Your task to perform on an android device: add a contact in the contacts app Image 0: 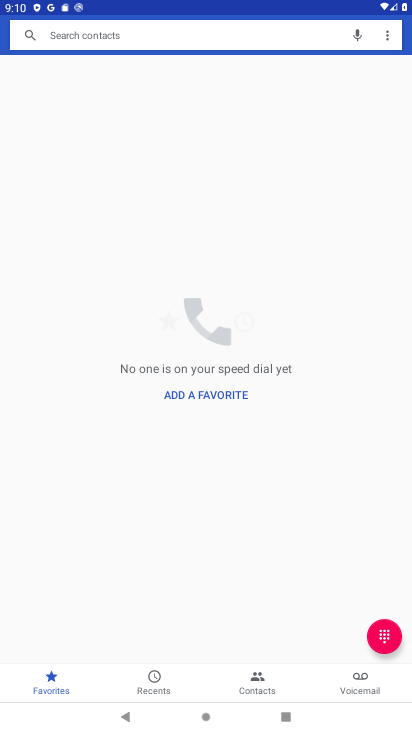
Step 0: press home button
Your task to perform on an android device: add a contact in the contacts app Image 1: 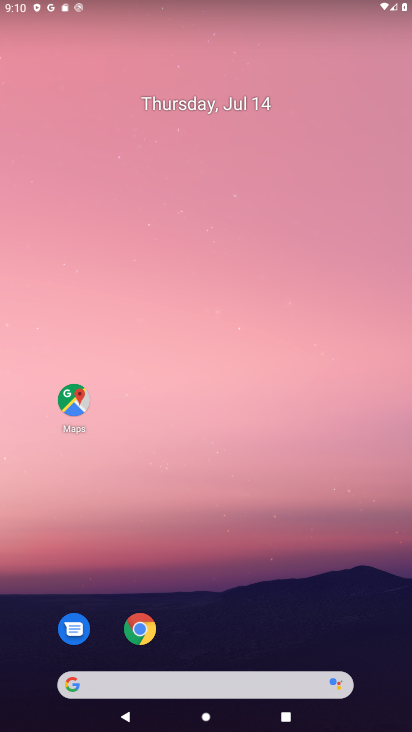
Step 1: drag from (30, 513) to (215, 118)
Your task to perform on an android device: add a contact in the contacts app Image 2: 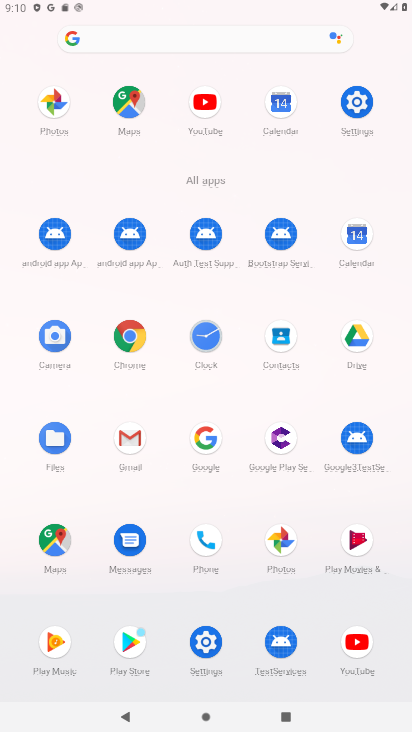
Step 2: click (208, 548)
Your task to perform on an android device: add a contact in the contacts app Image 3: 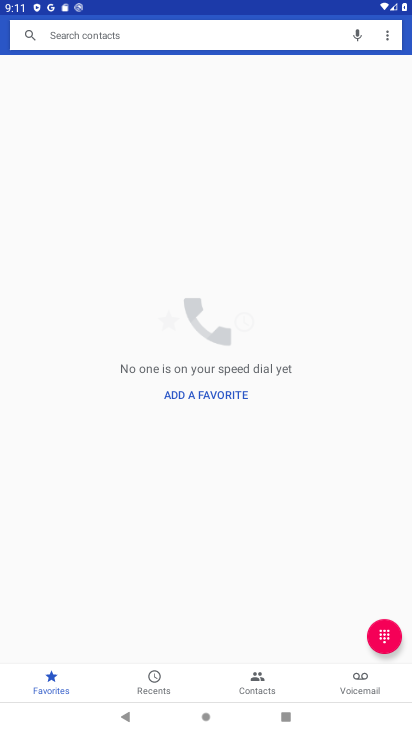
Step 3: click (236, 678)
Your task to perform on an android device: add a contact in the contacts app Image 4: 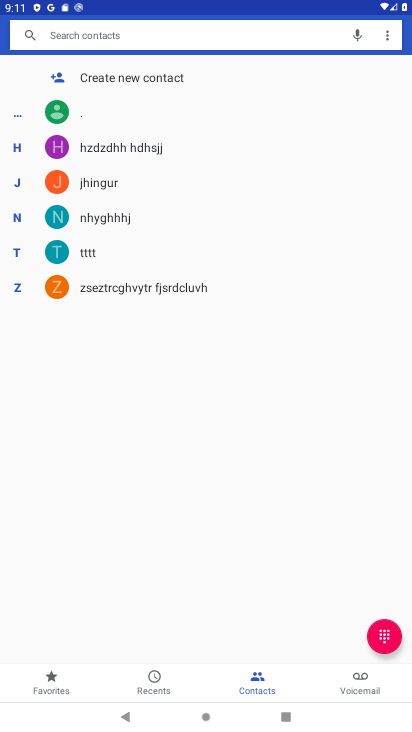
Step 4: click (170, 71)
Your task to perform on an android device: add a contact in the contacts app Image 5: 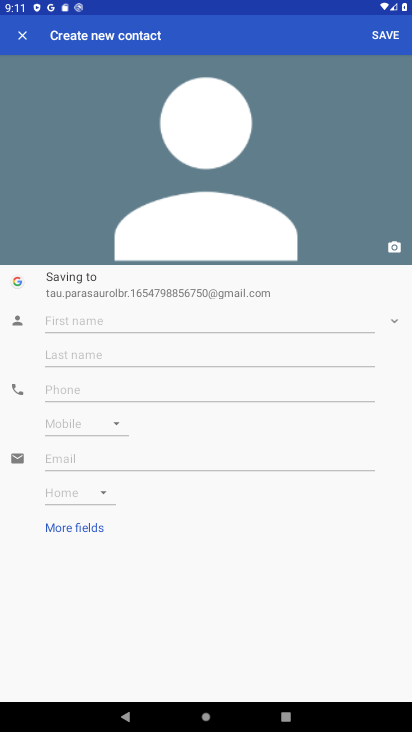
Step 5: click (168, 323)
Your task to perform on an android device: add a contact in the contacts app Image 6: 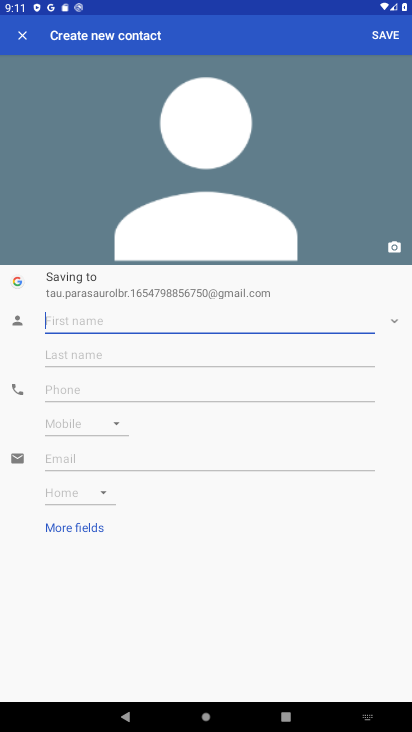
Step 6: type "bvbcfg"
Your task to perform on an android device: add a contact in the contacts app Image 7: 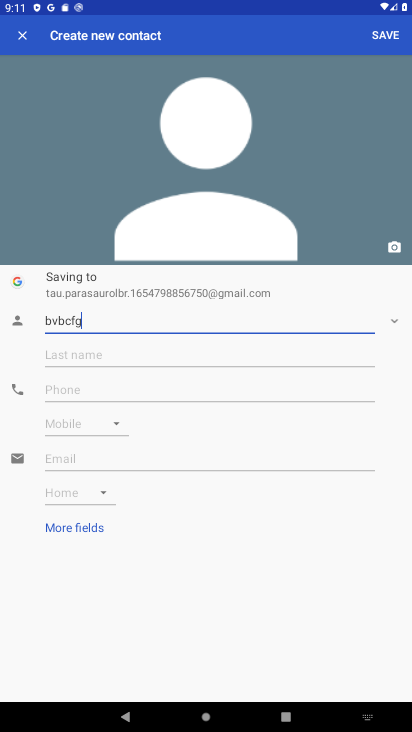
Step 7: type ""
Your task to perform on an android device: add a contact in the contacts app Image 8: 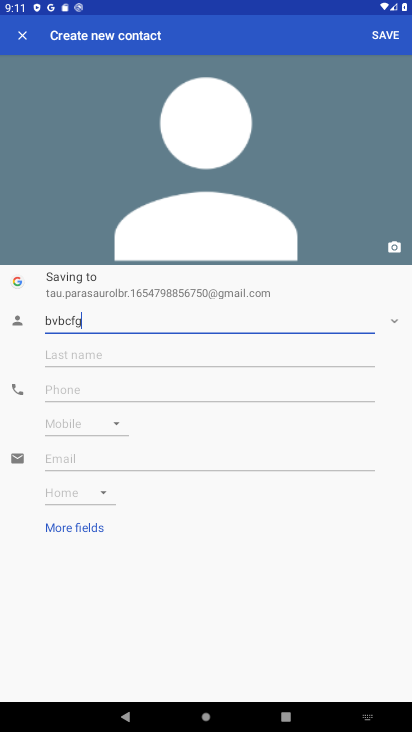
Step 8: click (389, 39)
Your task to perform on an android device: add a contact in the contacts app Image 9: 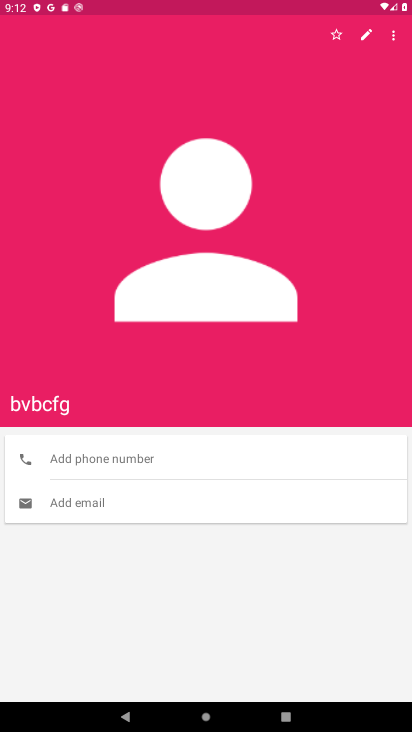
Step 9: task complete